Your task to perform on an android device: clear history in the chrome app Image 0: 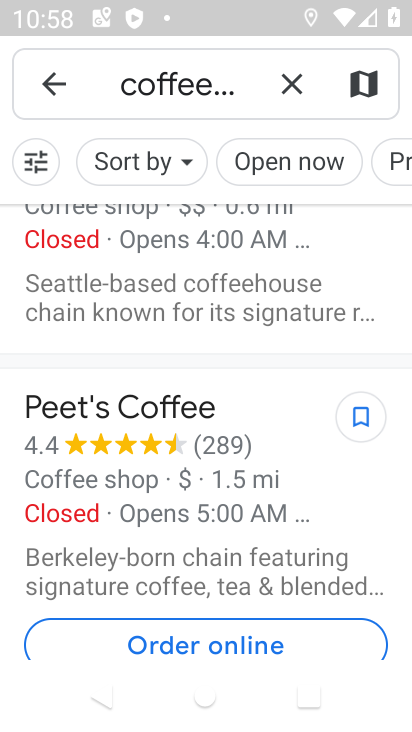
Step 0: press home button
Your task to perform on an android device: clear history in the chrome app Image 1: 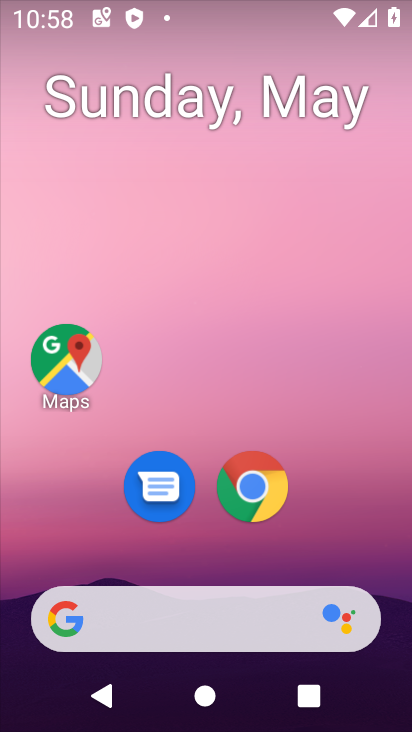
Step 1: drag from (310, 531) to (304, 85)
Your task to perform on an android device: clear history in the chrome app Image 2: 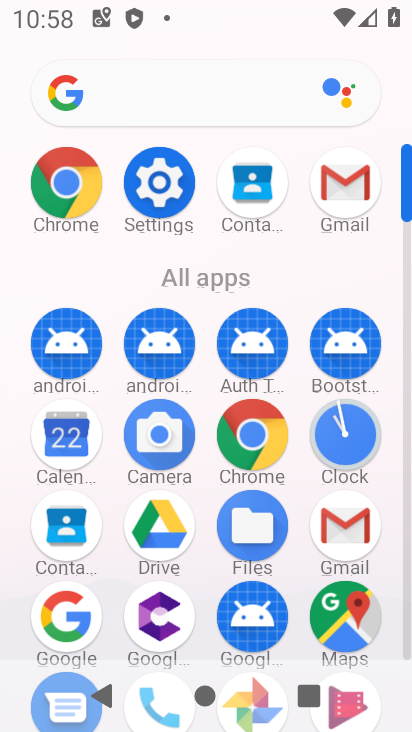
Step 2: click (65, 223)
Your task to perform on an android device: clear history in the chrome app Image 3: 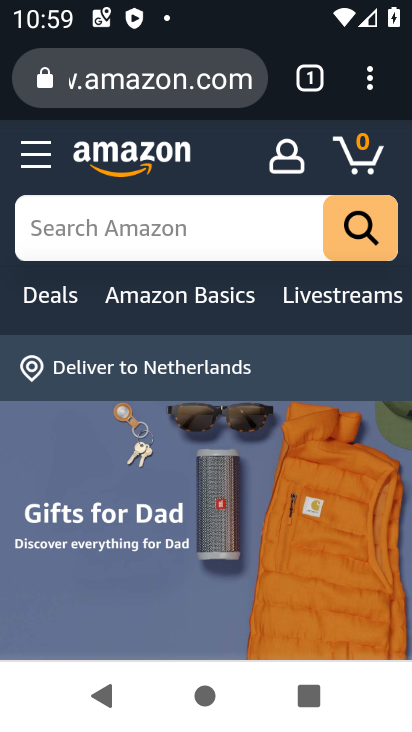
Step 3: click (366, 80)
Your task to perform on an android device: clear history in the chrome app Image 4: 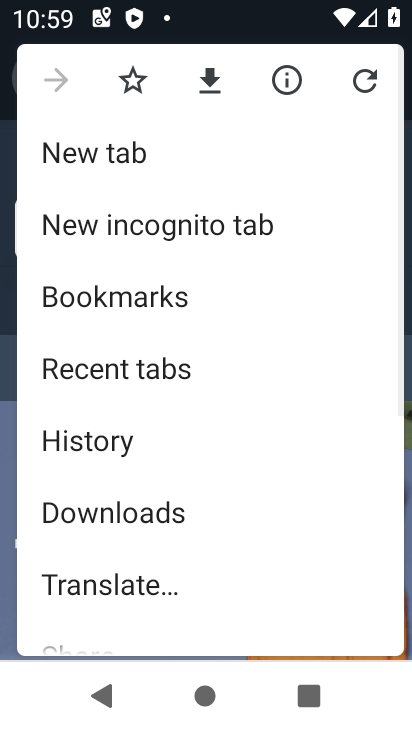
Step 4: click (102, 457)
Your task to perform on an android device: clear history in the chrome app Image 5: 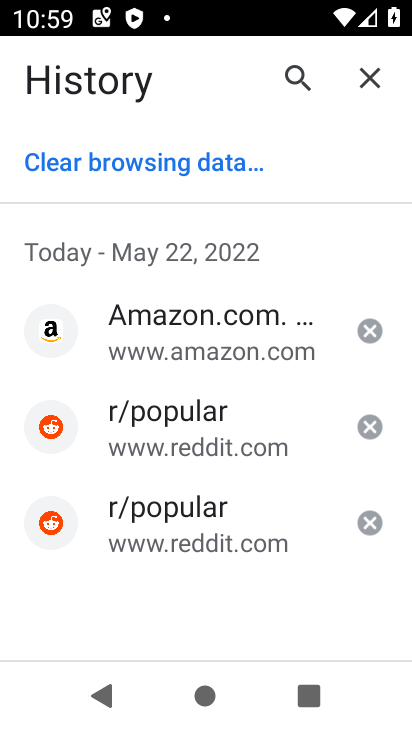
Step 5: click (170, 148)
Your task to perform on an android device: clear history in the chrome app Image 6: 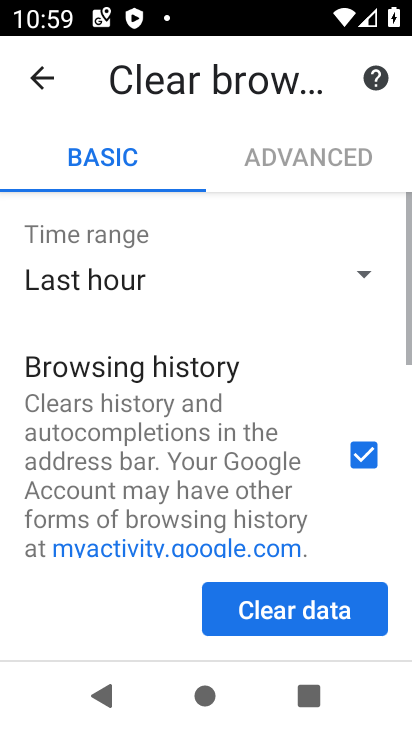
Step 6: drag from (259, 506) to (284, 345)
Your task to perform on an android device: clear history in the chrome app Image 7: 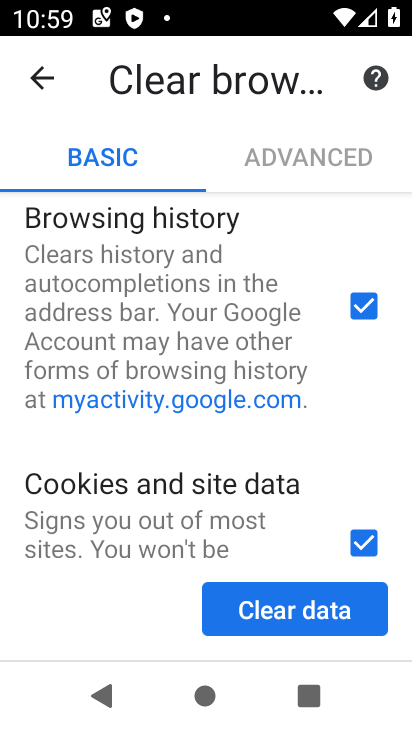
Step 7: drag from (210, 503) to (234, 292)
Your task to perform on an android device: clear history in the chrome app Image 8: 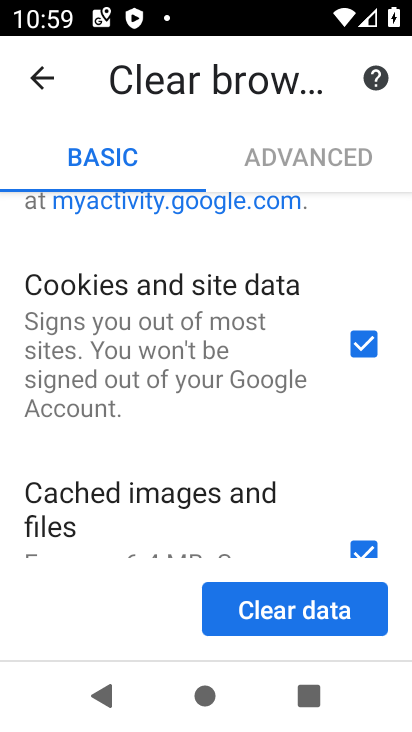
Step 8: click (275, 628)
Your task to perform on an android device: clear history in the chrome app Image 9: 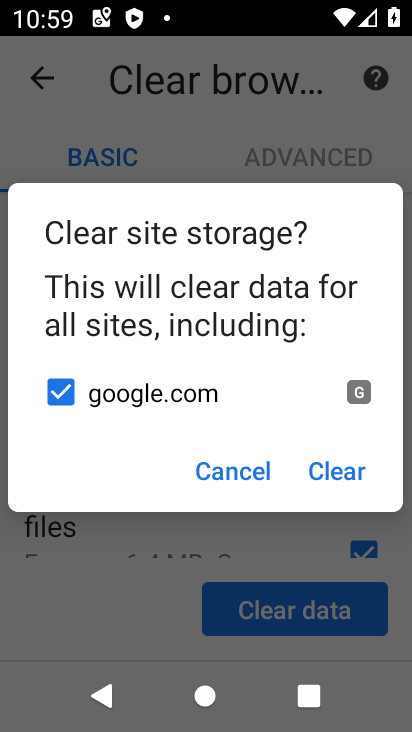
Step 9: click (313, 469)
Your task to perform on an android device: clear history in the chrome app Image 10: 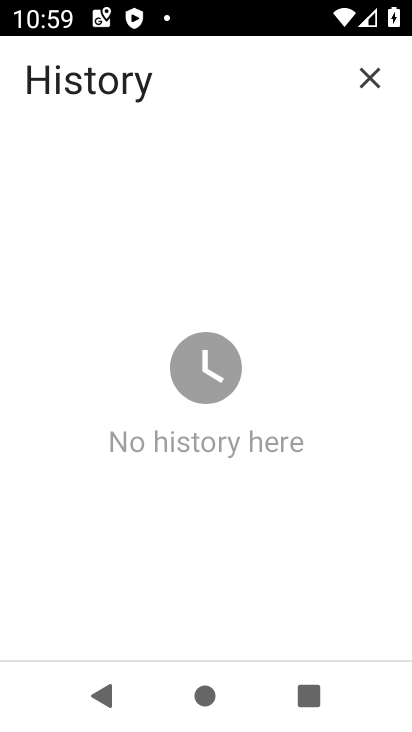
Step 10: task complete